Your task to perform on an android device: delete browsing data in the chrome app Image 0: 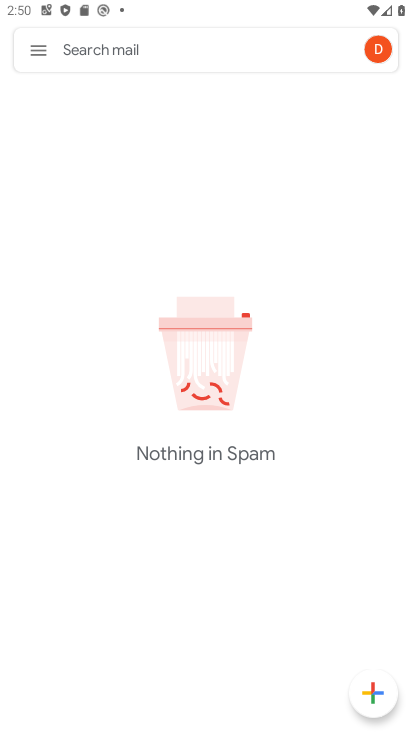
Step 0: press home button
Your task to perform on an android device: delete browsing data in the chrome app Image 1: 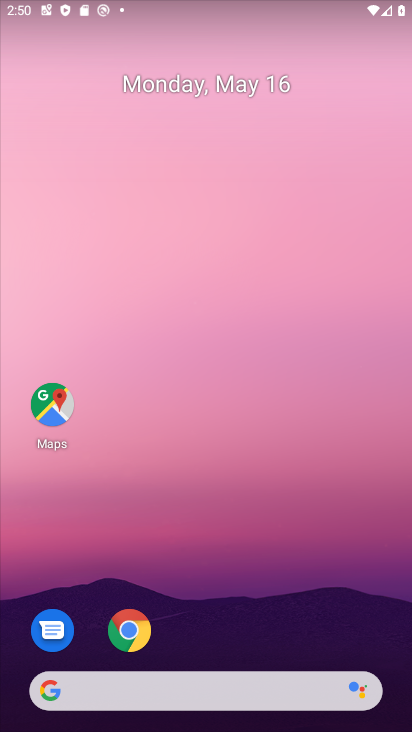
Step 1: click (133, 628)
Your task to perform on an android device: delete browsing data in the chrome app Image 2: 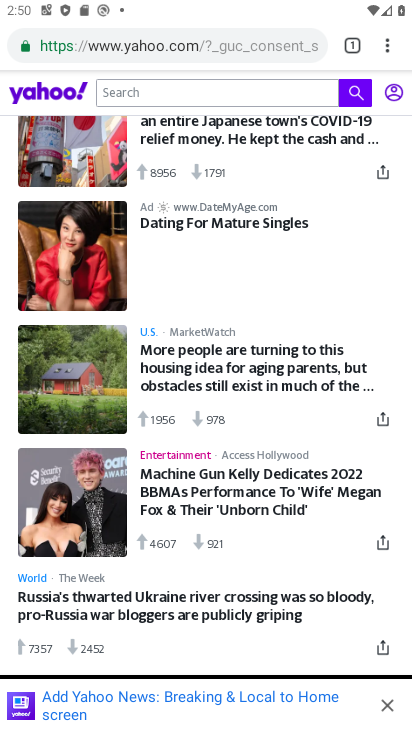
Step 2: click (389, 34)
Your task to perform on an android device: delete browsing data in the chrome app Image 3: 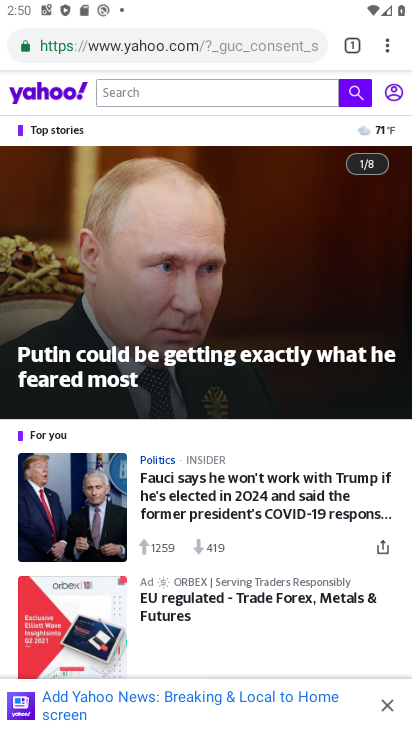
Step 3: click (384, 41)
Your task to perform on an android device: delete browsing data in the chrome app Image 4: 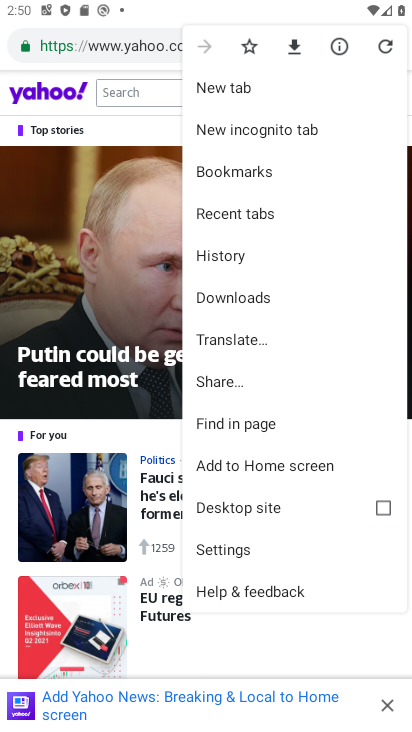
Step 4: click (247, 249)
Your task to perform on an android device: delete browsing data in the chrome app Image 5: 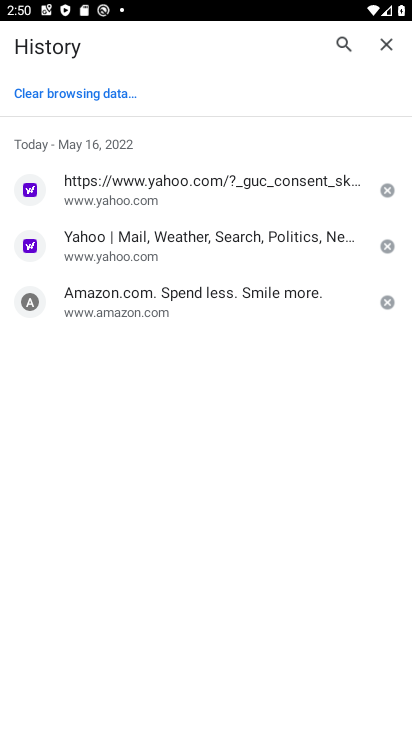
Step 5: click (76, 92)
Your task to perform on an android device: delete browsing data in the chrome app Image 6: 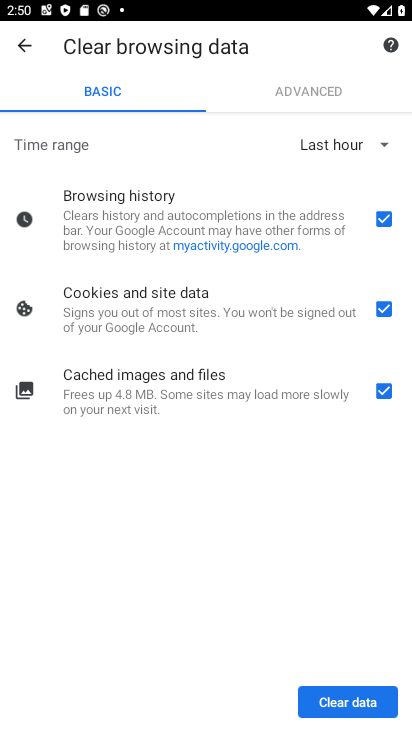
Step 6: click (83, 93)
Your task to perform on an android device: delete browsing data in the chrome app Image 7: 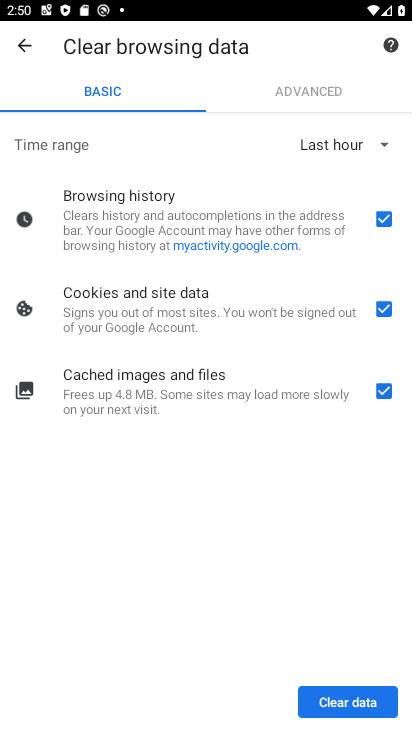
Step 7: click (368, 702)
Your task to perform on an android device: delete browsing data in the chrome app Image 8: 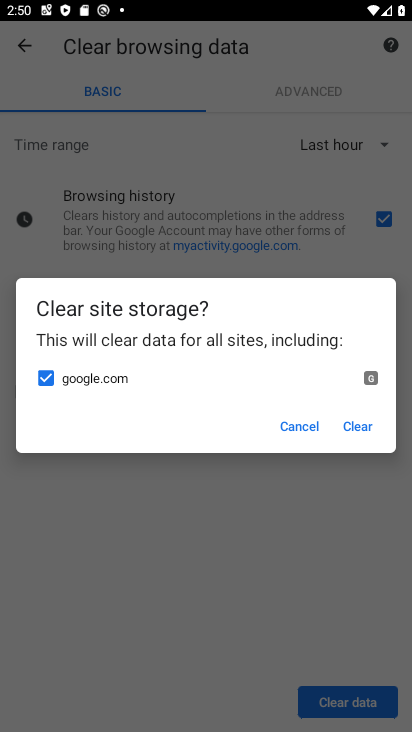
Step 8: click (297, 427)
Your task to perform on an android device: delete browsing data in the chrome app Image 9: 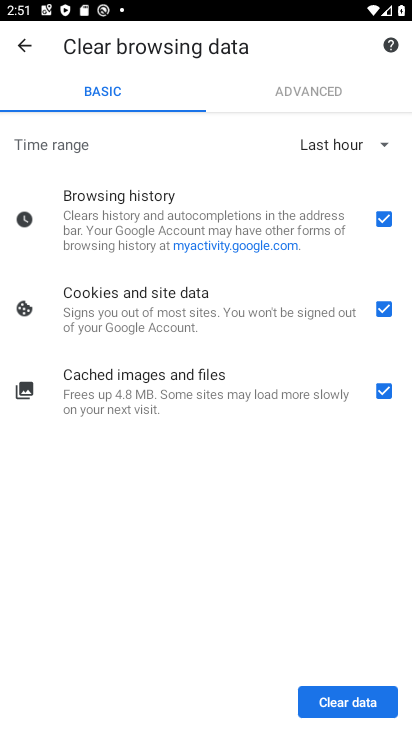
Step 9: click (381, 145)
Your task to perform on an android device: delete browsing data in the chrome app Image 10: 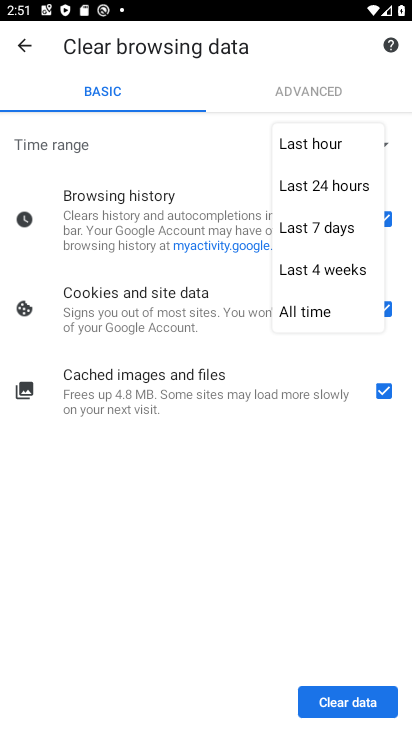
Step 10: click (317, 299)
Your task to perform on an android device: delete browsing data in the chrome app Image 11: 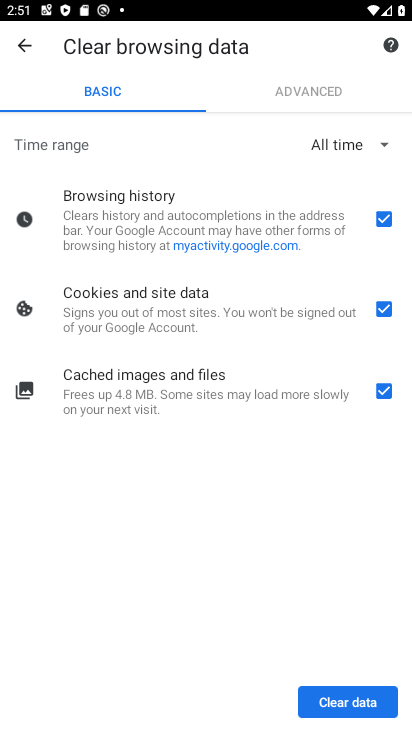
Step 11: click (357, 703)
Your task to perform on an android device: delete browsing data in the chrome app Image 12: 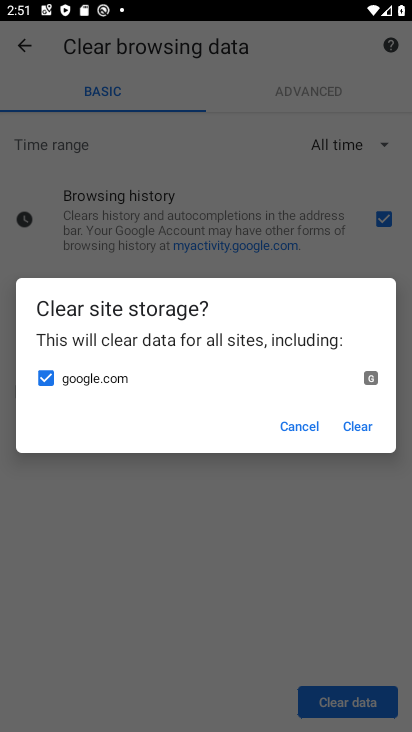
Step 12: click (350, 428)
Your task to perform on an android device: delete browsing data in the chrome app Image 13: 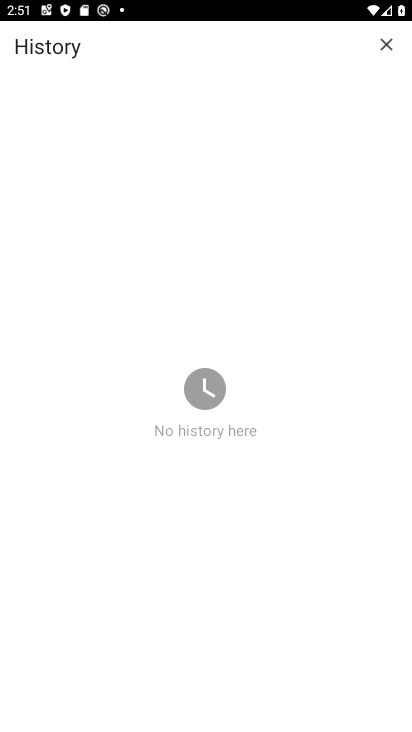
Step 13: task complete